Your task to perform on an android device: Open display settings Image 0: 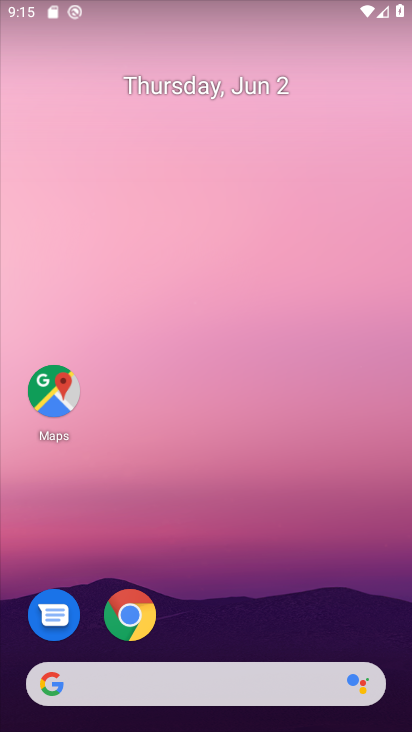
Step 0: drag from (191, 404) to (193, 142)
Your task to perform on an android device: Open display settings Image 1: 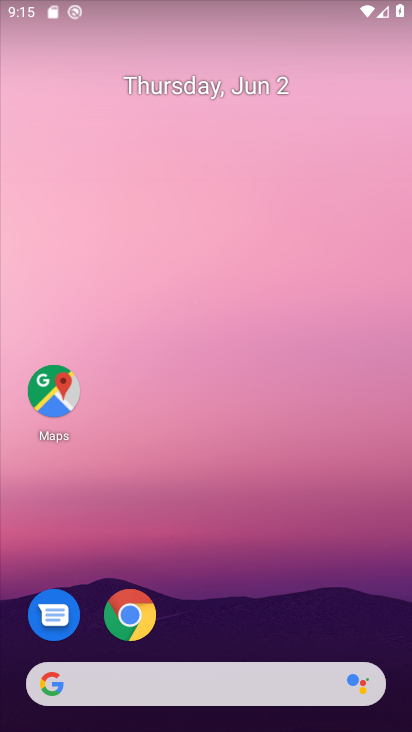
Step 1: drag from (207, 622) to (301, 160)
Your task to perform on an android device: Open display settings Image 2: 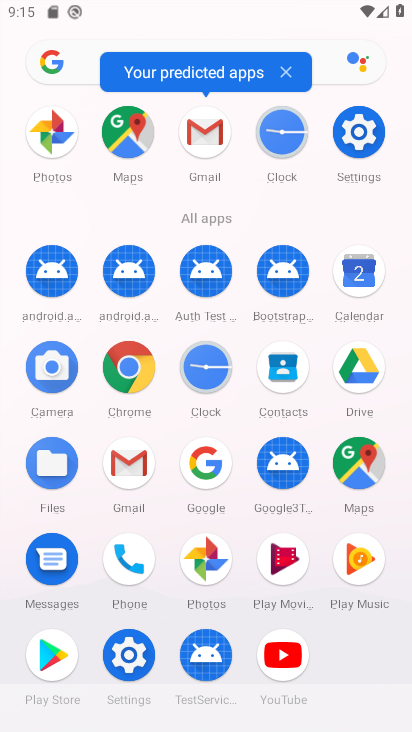
Step 2: click (355, 128)
Your task to perform on an android device: Open display settings Image 3: 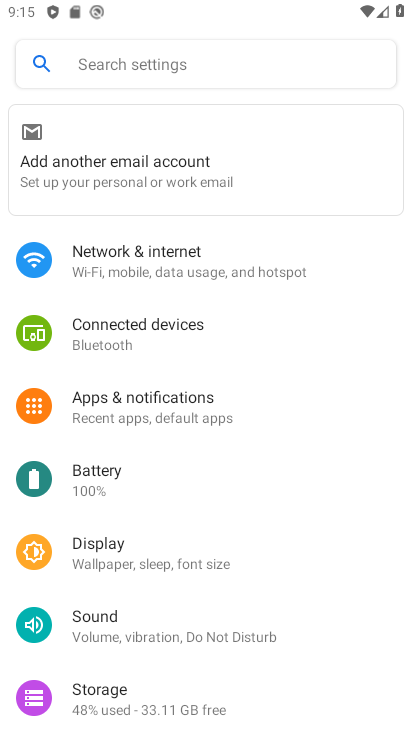
Step 3: click (156, 559)
Your task to perform on an android device: Open display settings Image 4: 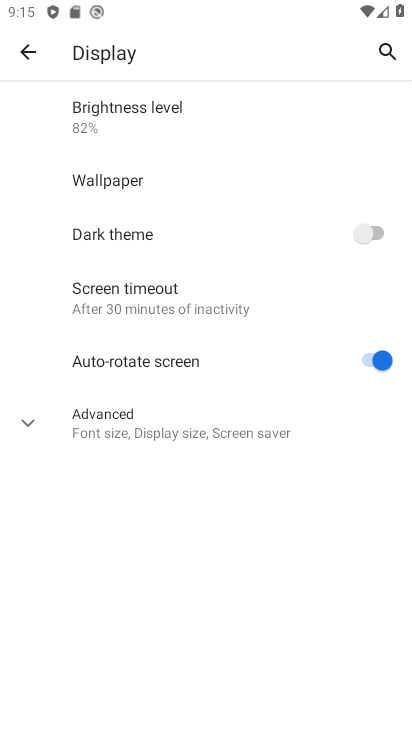
Step 4: task complete